Your task to perform on an android device: uninstall "Calculator" Image 0: 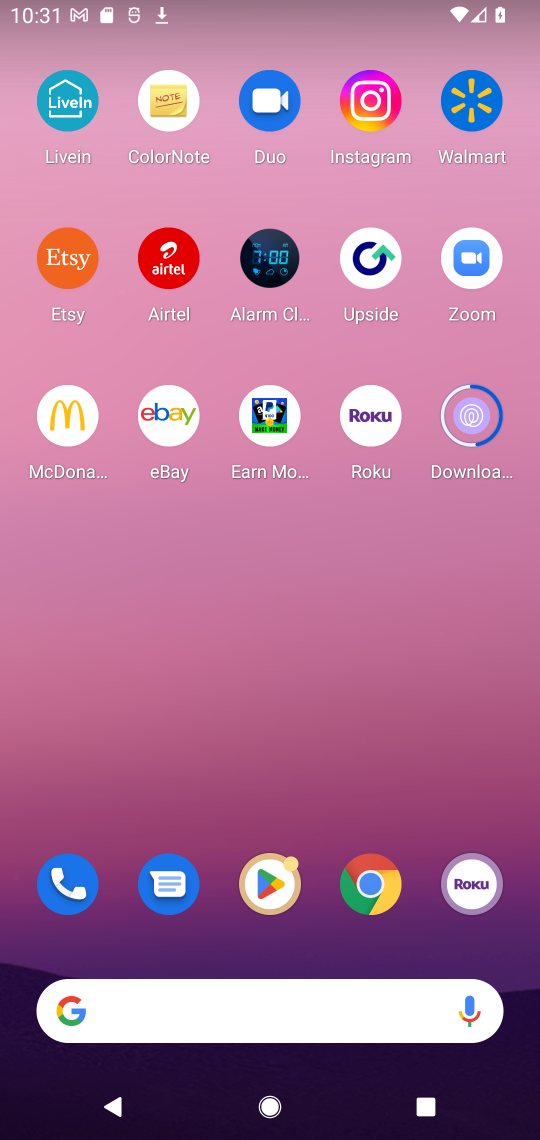
Step 0: click (273, 903)
Your task to perform on an android device: uninstall "Calculator" Image 1: 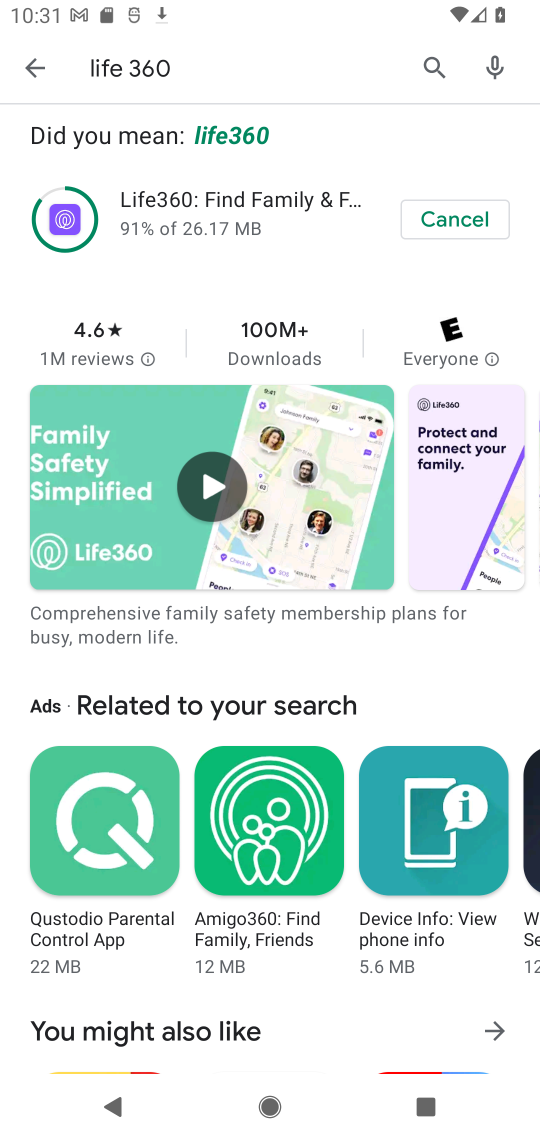
Step 1: task complete